Your task to perform on an android device: turn pop-ups on in chrome Image 0: 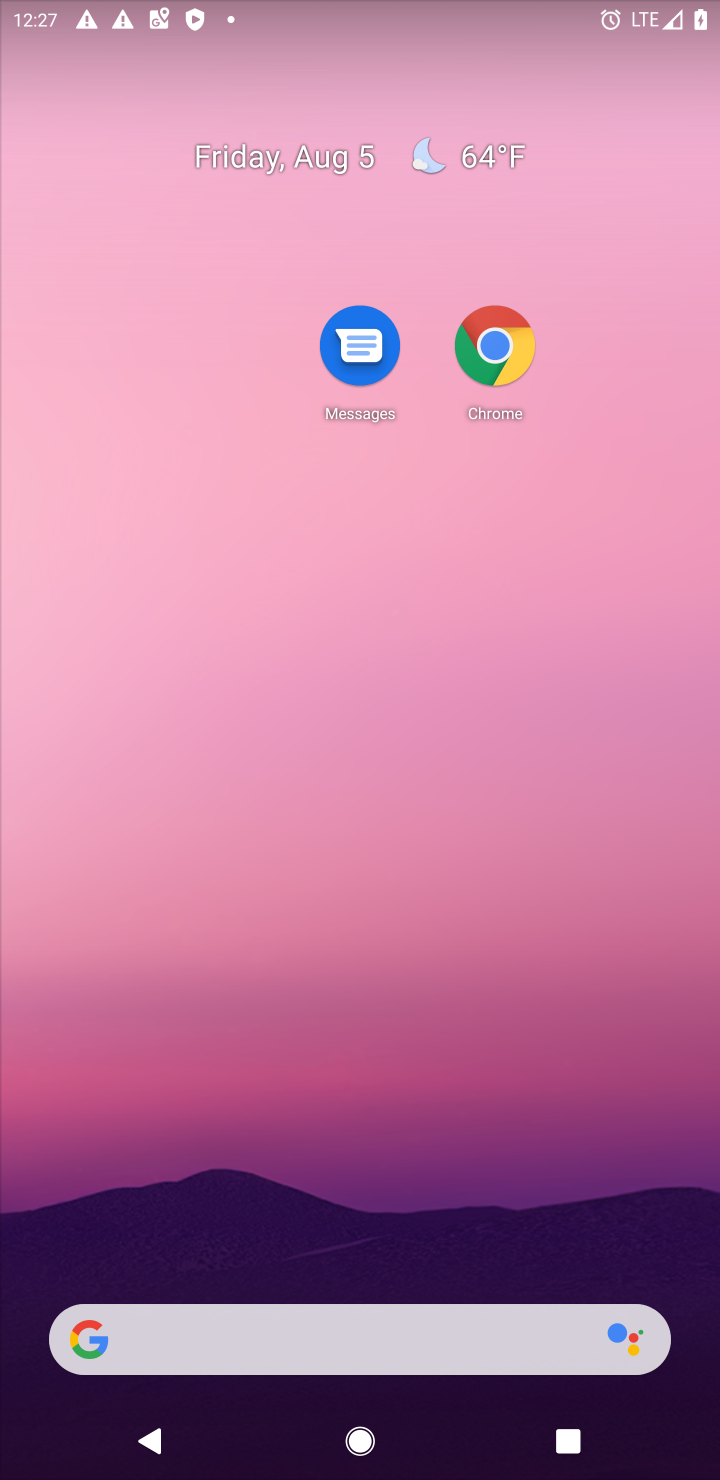
Step 0: drag from (341, 952) to (645, 9)
Your task to perform on an android device: turn pop-ups on in chrome Image 1: 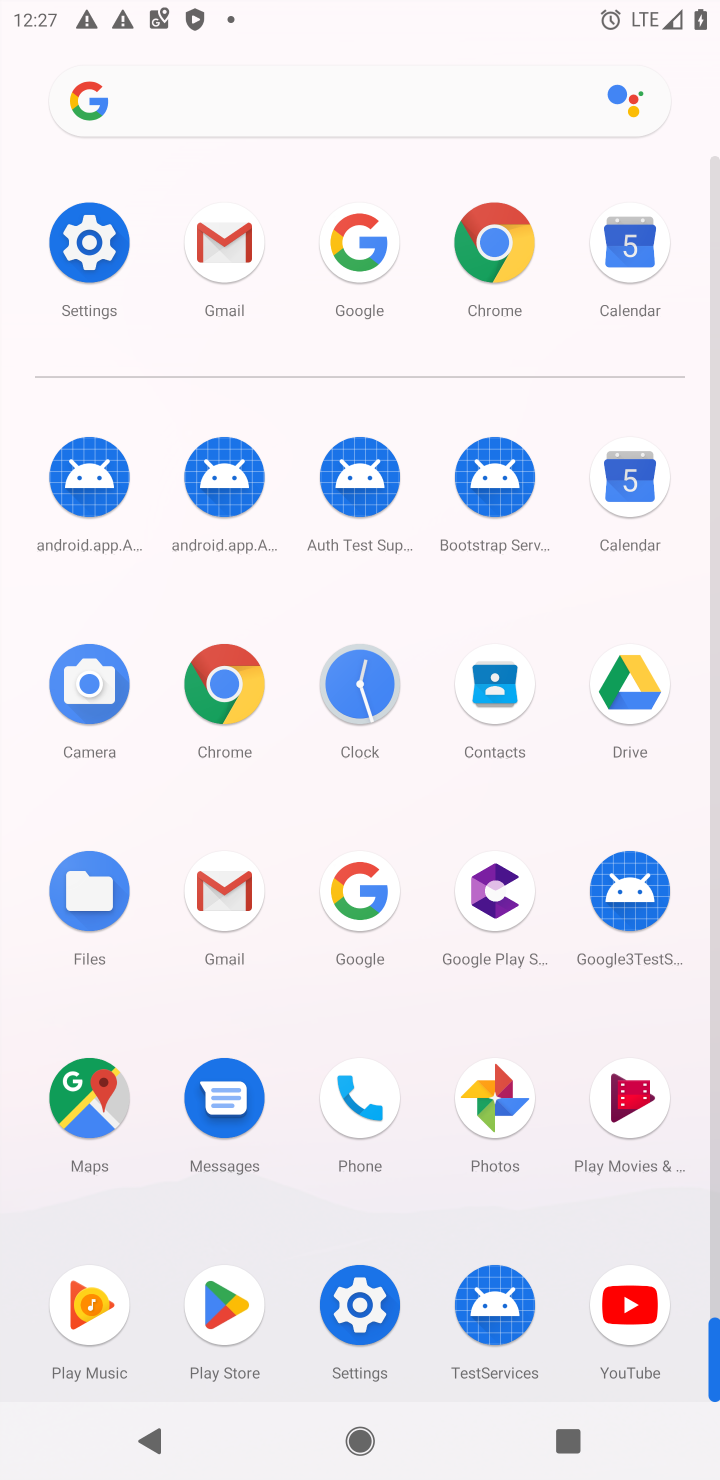
Step 1: click (503, 240)
Your task to perform on an android device: turn pop-ups on in chrome Image 2: 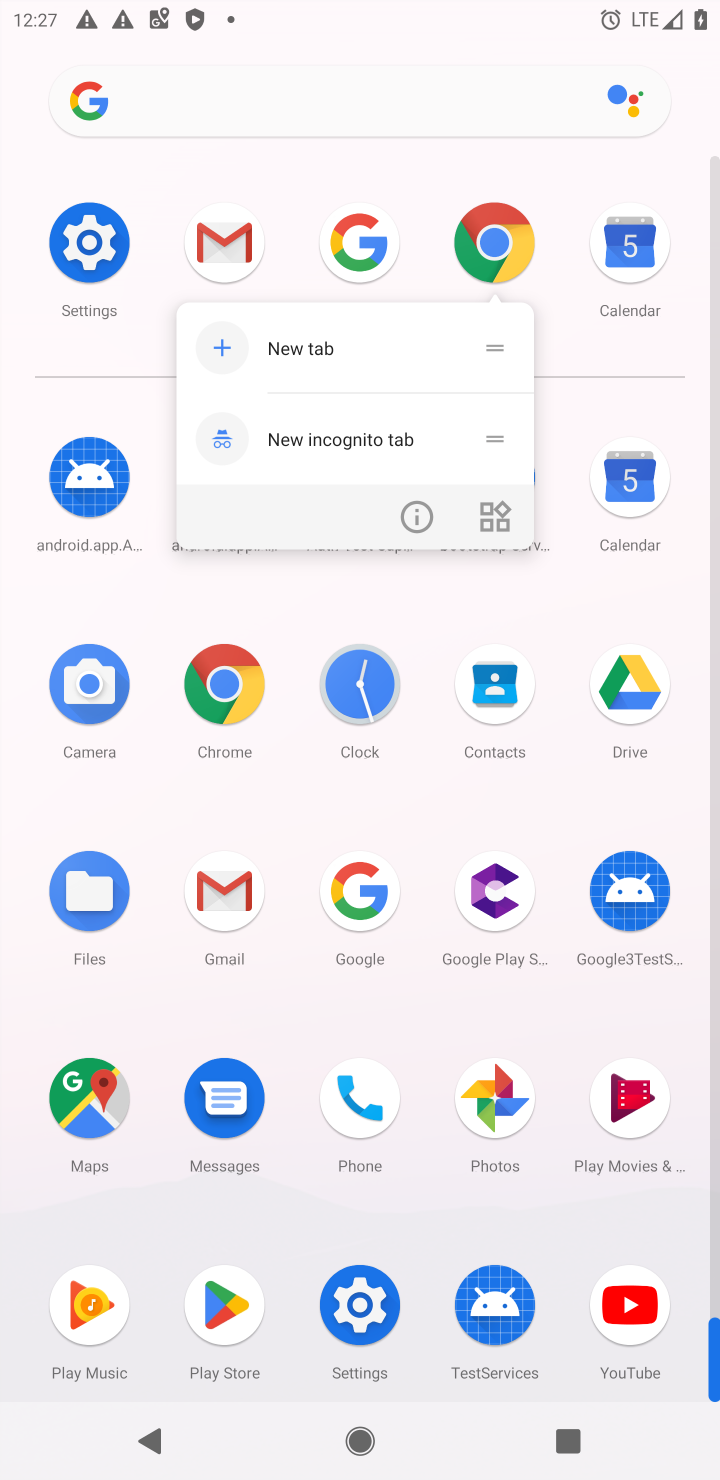
Step 2: click (503, 240)
Your task to perform on an android device: turn pop-ups on in chrome Image 3: 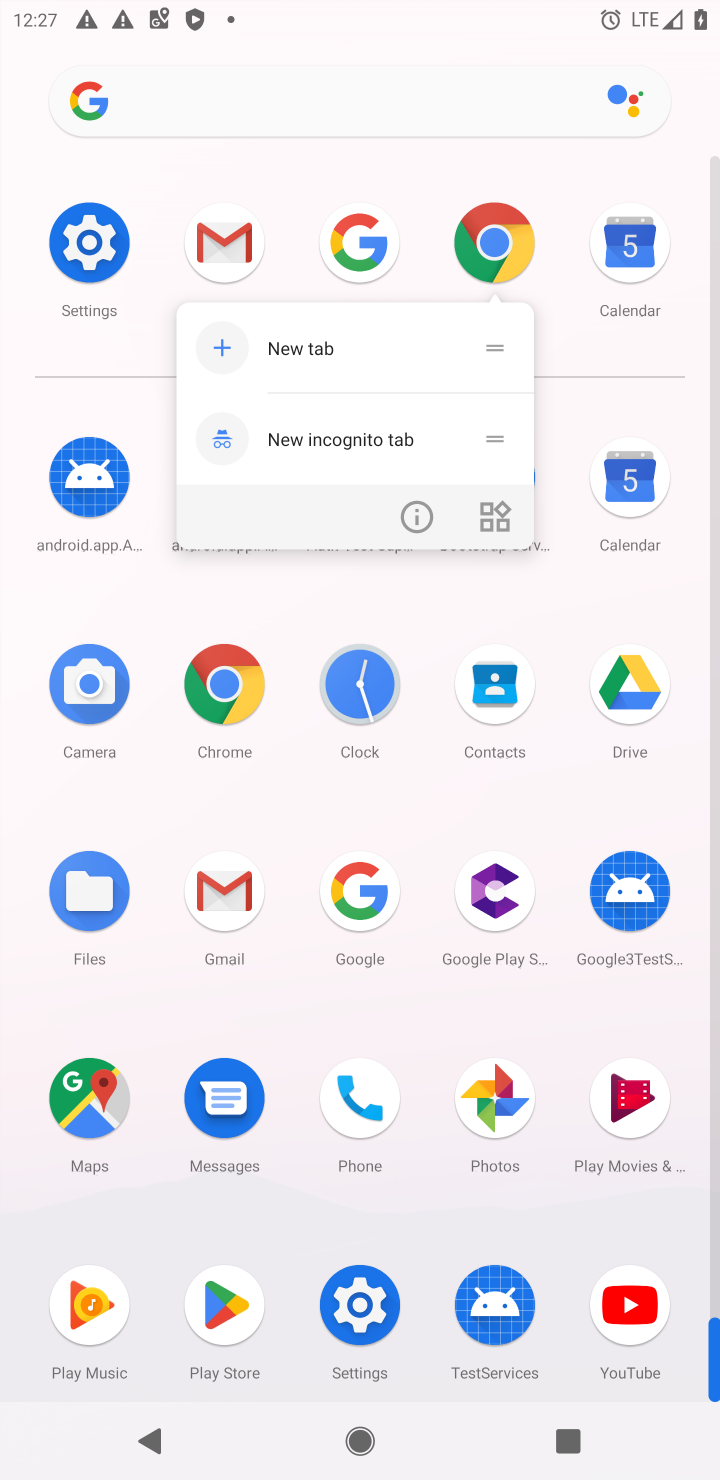
Step 3: click (503, 240)
Your task to perform on an android device: turn pop-ups on in chrome Image 4: 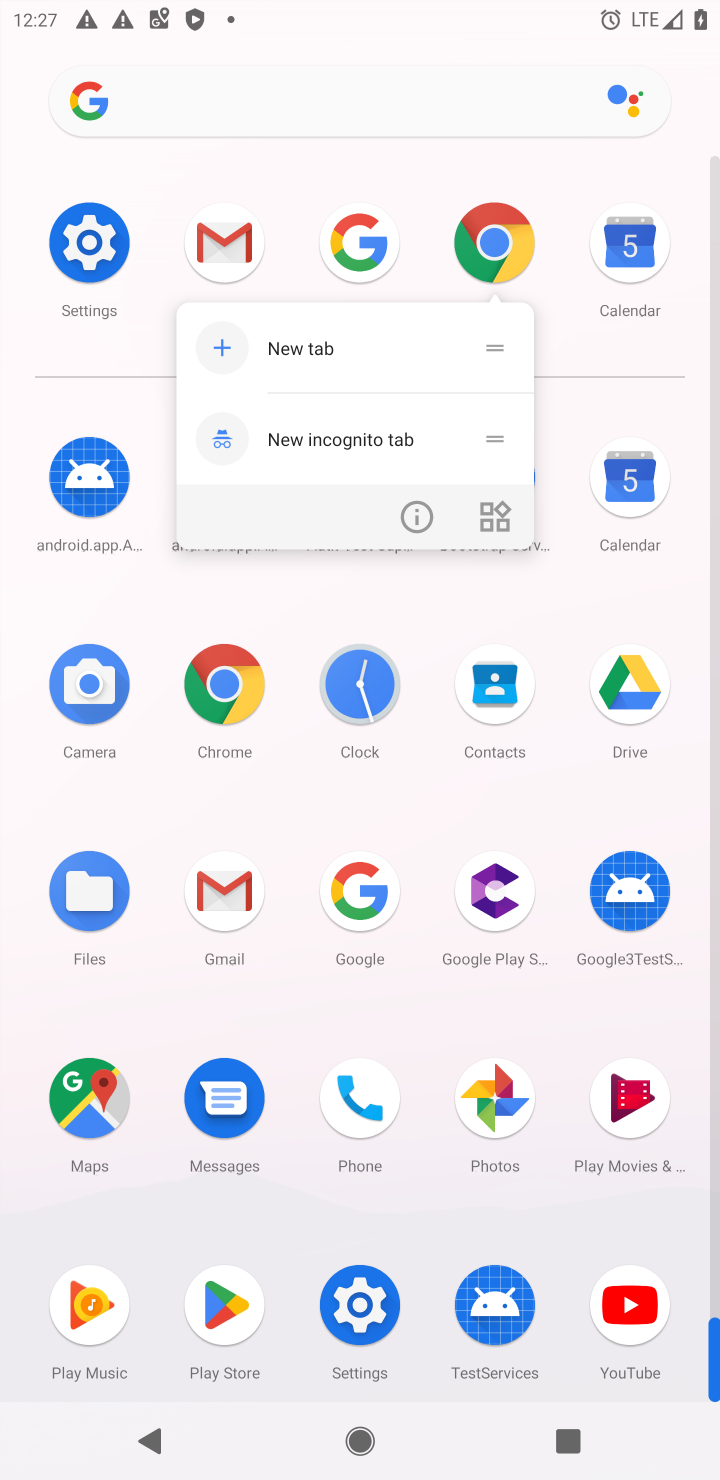
Step 4: click (510, 251)
Your task to perform on an android device: turn pop-ups on in chrome Image 5: 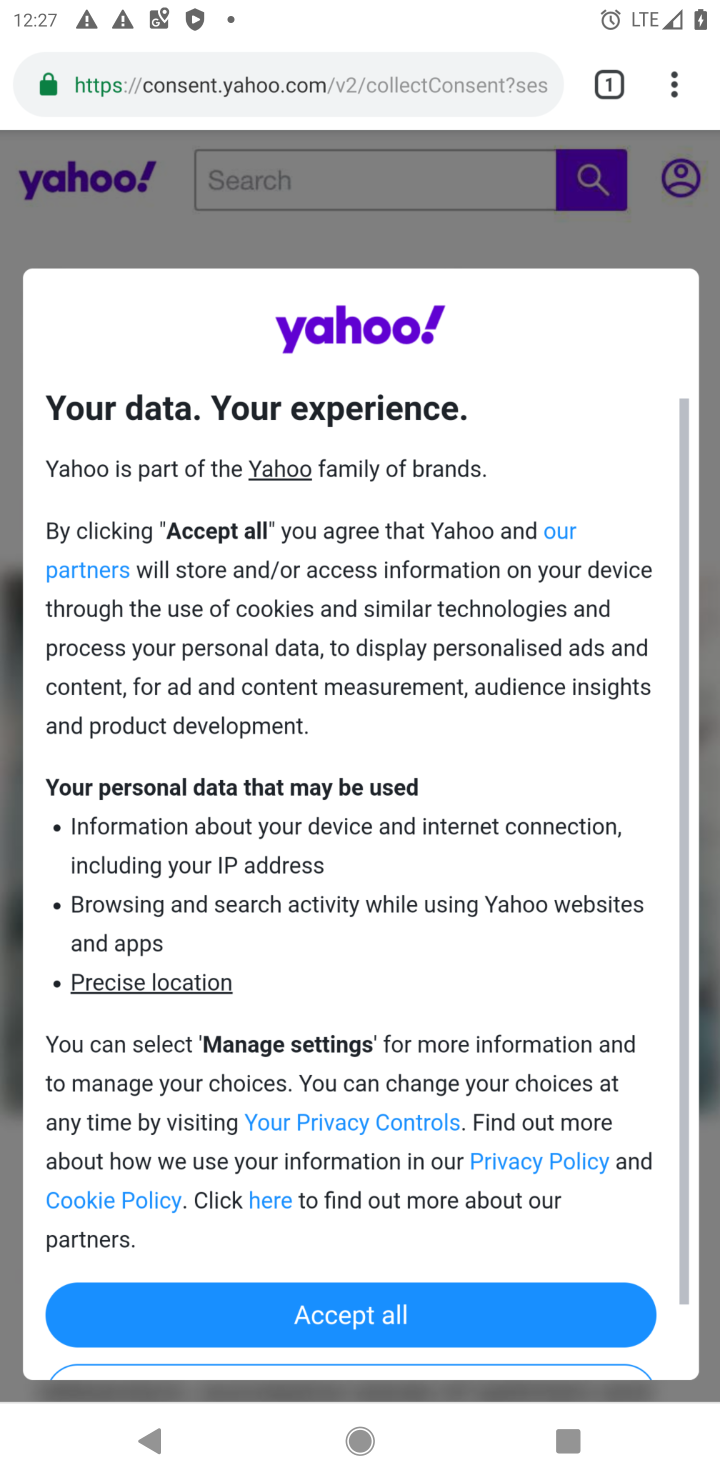
Step 5: drag from (667, 89) to (358, 950)
Your task to perform on an android device: turn pop-ups on in chrome Image 6: 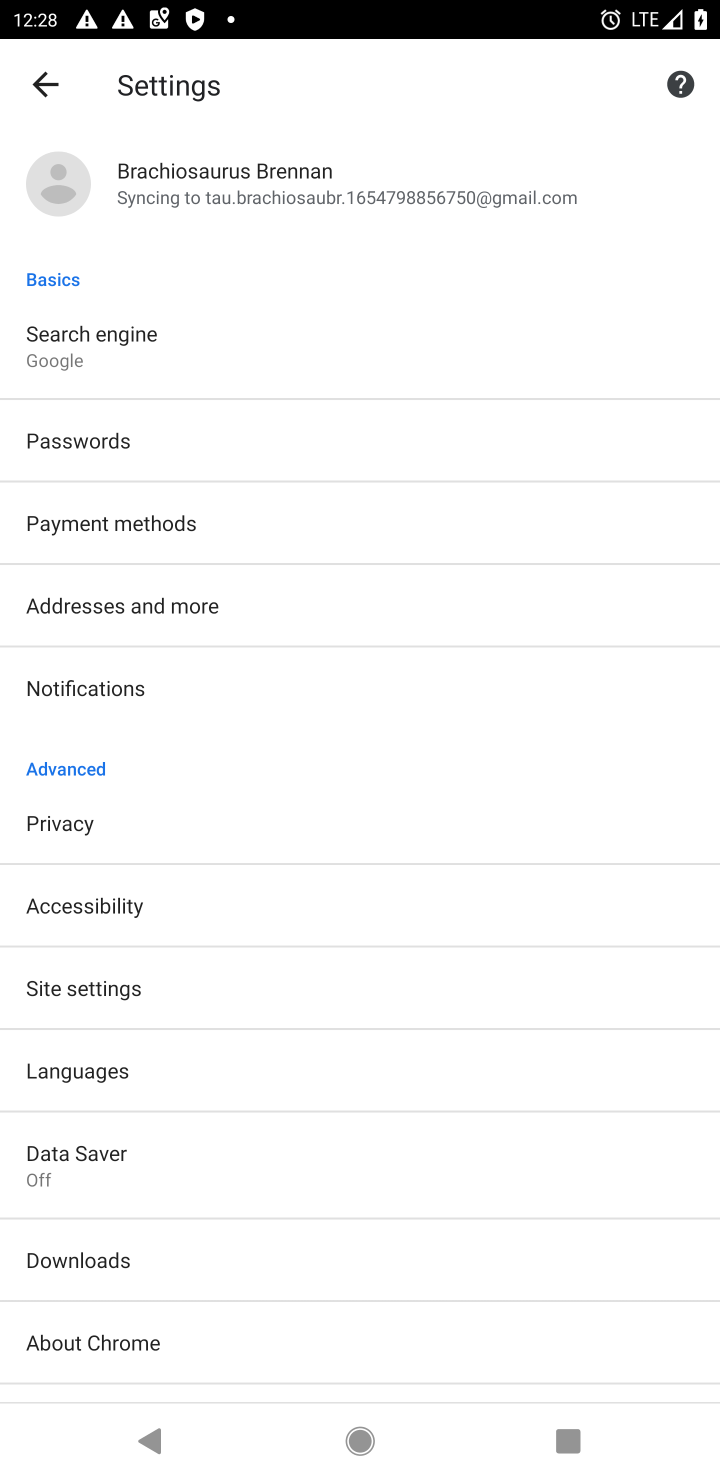
Step 6: click (80, 994)
Your task to perform on an android device: turn pop-ups on in chrome Image 7: 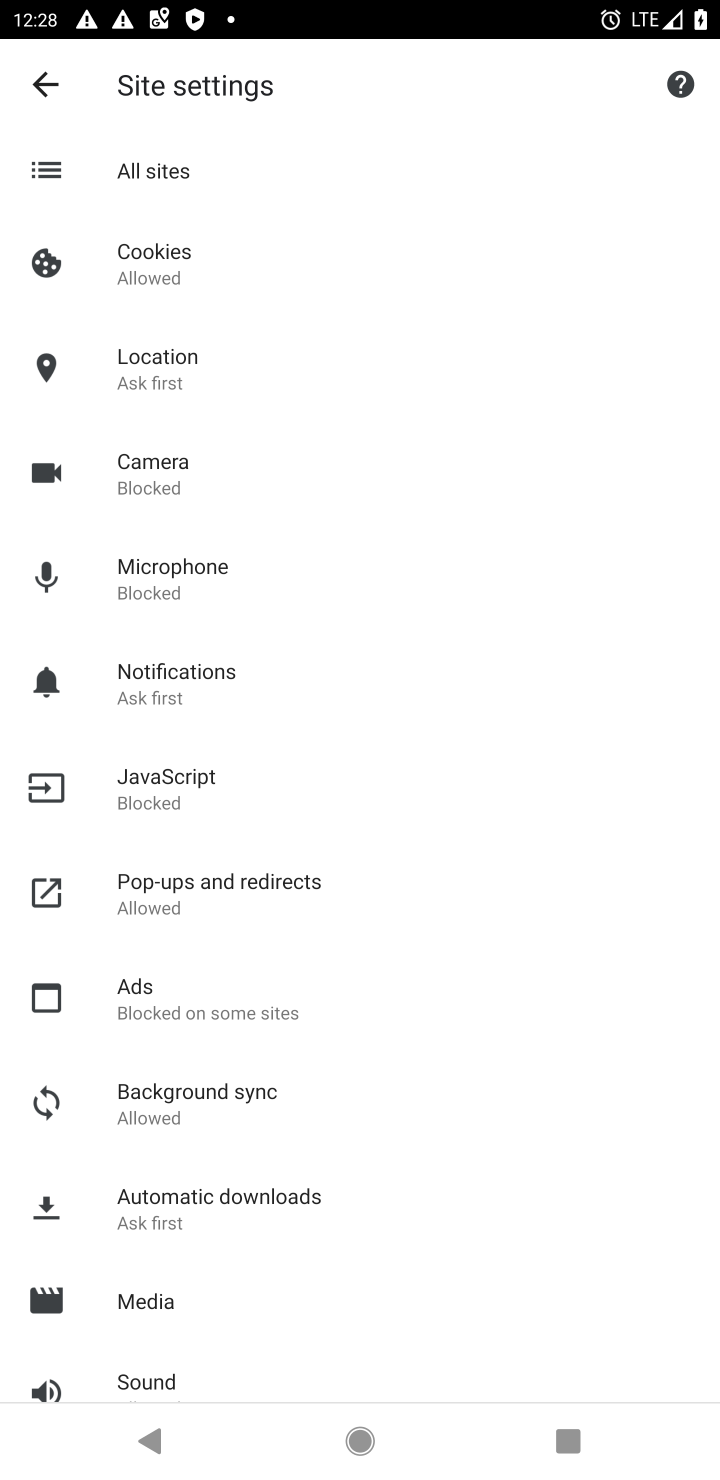
Step 7: click (142, 927)
Your task to perform on an android device: turn pop-ups on in chrome Image 8: 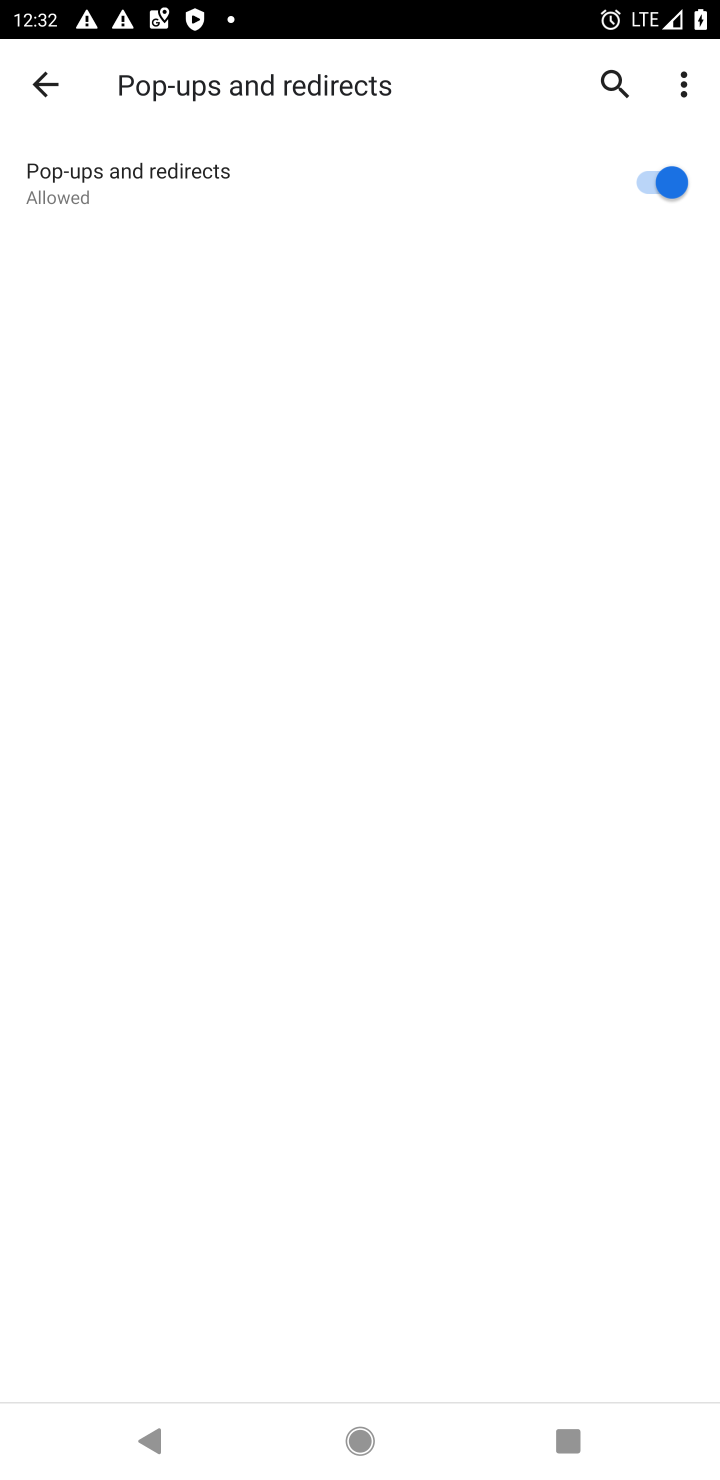
Step 8: task complete